Your task to perform on an android device: Show me popular games on the Play Store Image 0: 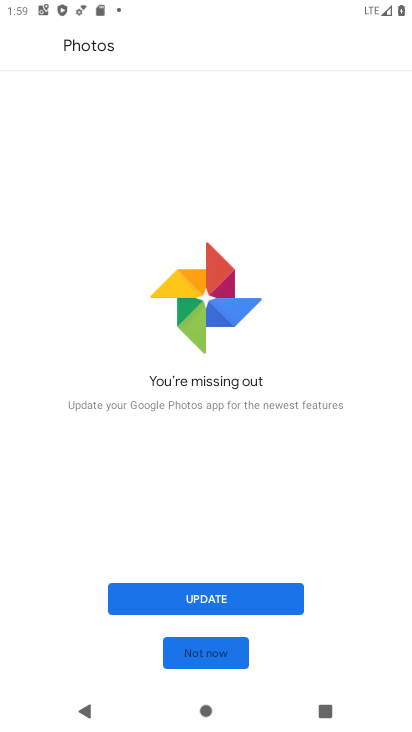
Step 0: press home button
Your task to perform on an android device: Show me popular games on the Play Store Image 1: 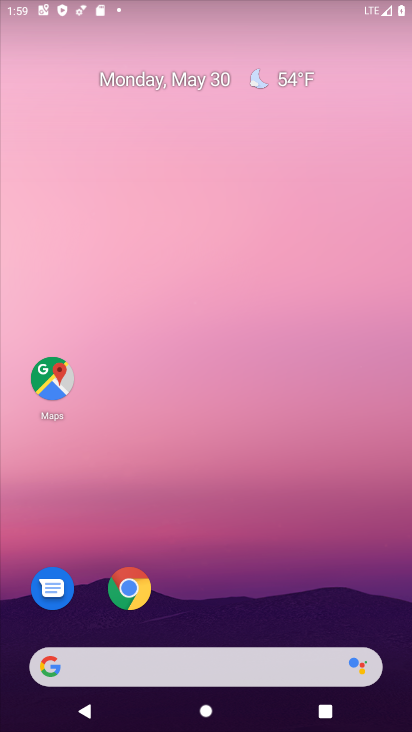
Step 1: drag from (225, 617) to (304, 87)
Your task to perform on an android device: Show me popular games on the Play Store Image 2: 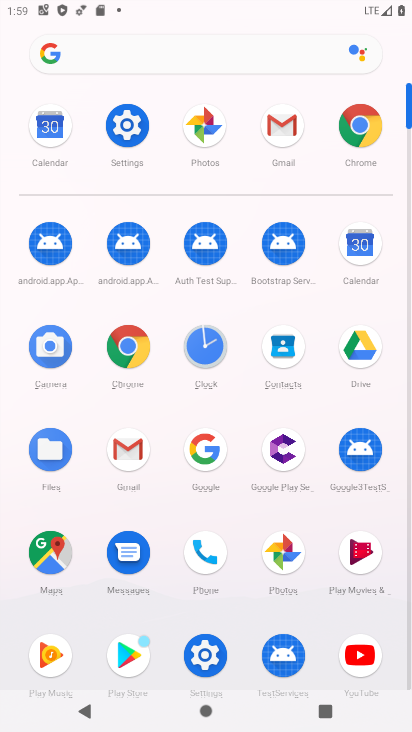
Step 2: click (134, 652)
Your task to perform on an android device: Show me popular games on the Play Store Image 3: 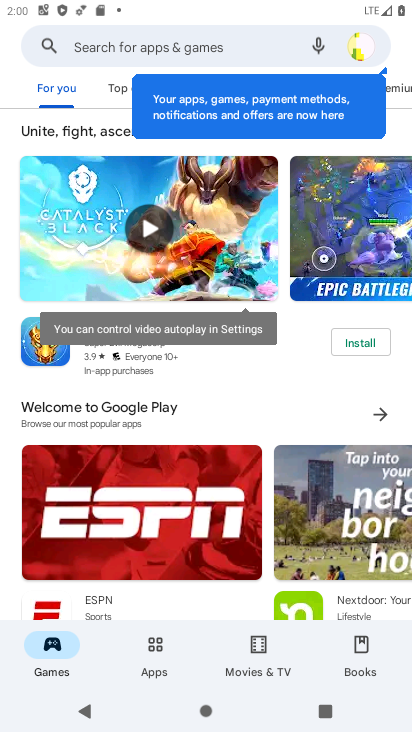
Step 3: drag from (235, 391) to (185, 8)
Your task to perform on an android device: Show me popular games on the Play Store Image 4: 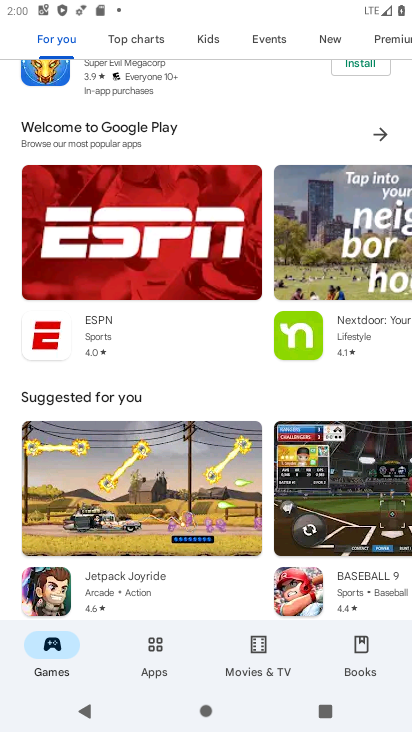
Step 4: drag from (204, 527) to (246, 129)
Your task to perform on an android device: Show me popular games on the Play Store Image 5: 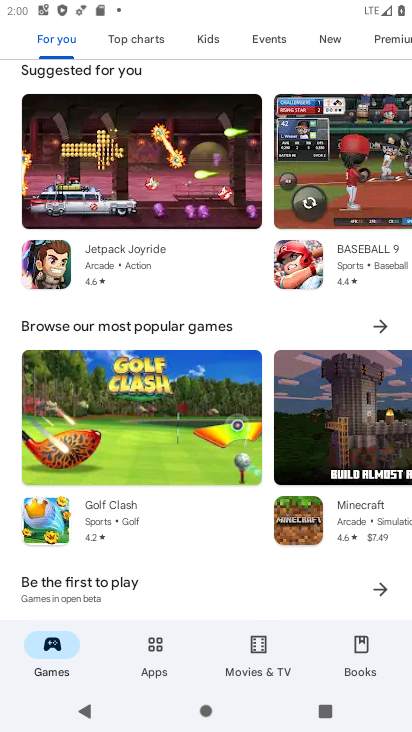
Step 5: click (337, 326)
Your task to perform on an android device: Show me popular games on the Play Store Image 6: 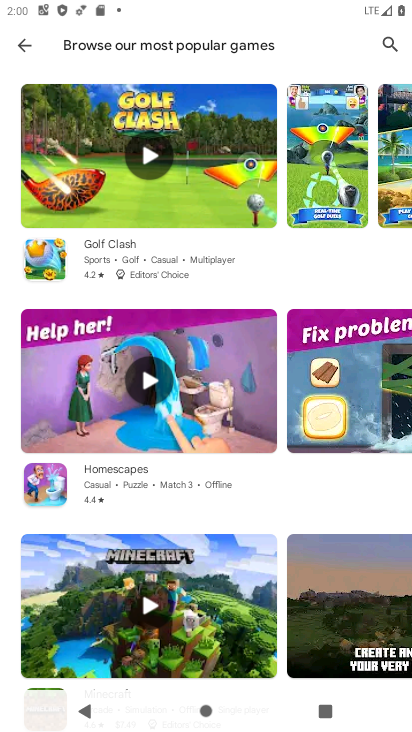
Step 6: task complete